Your task to perform on an android device: Show me productivity apps on the Play Store Image 0: 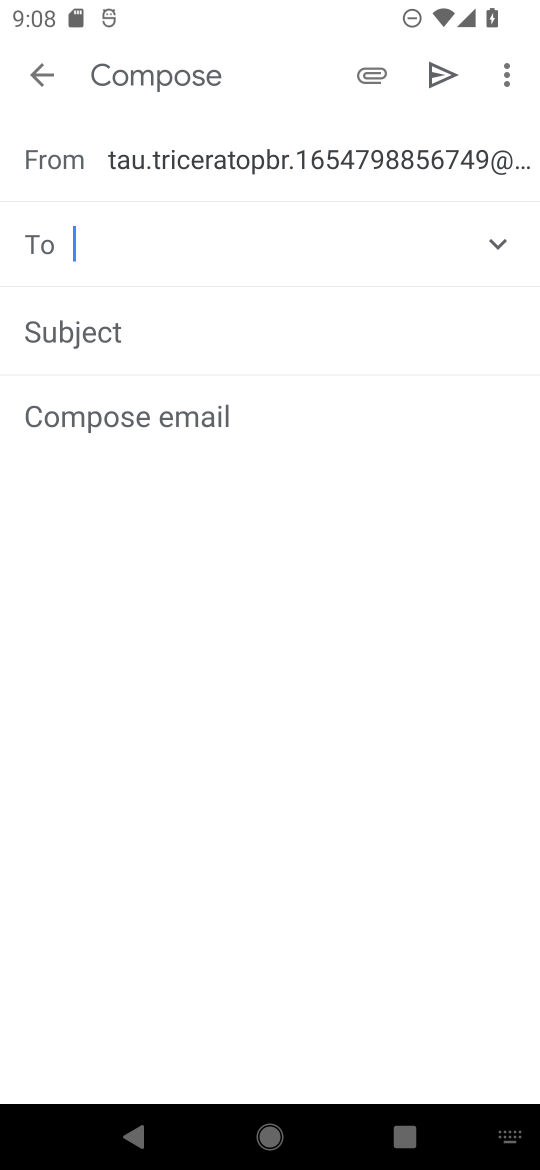
Step 0: press home button
Your task to perform on an android device: Show me productivity apps on the Play Store Image 1: 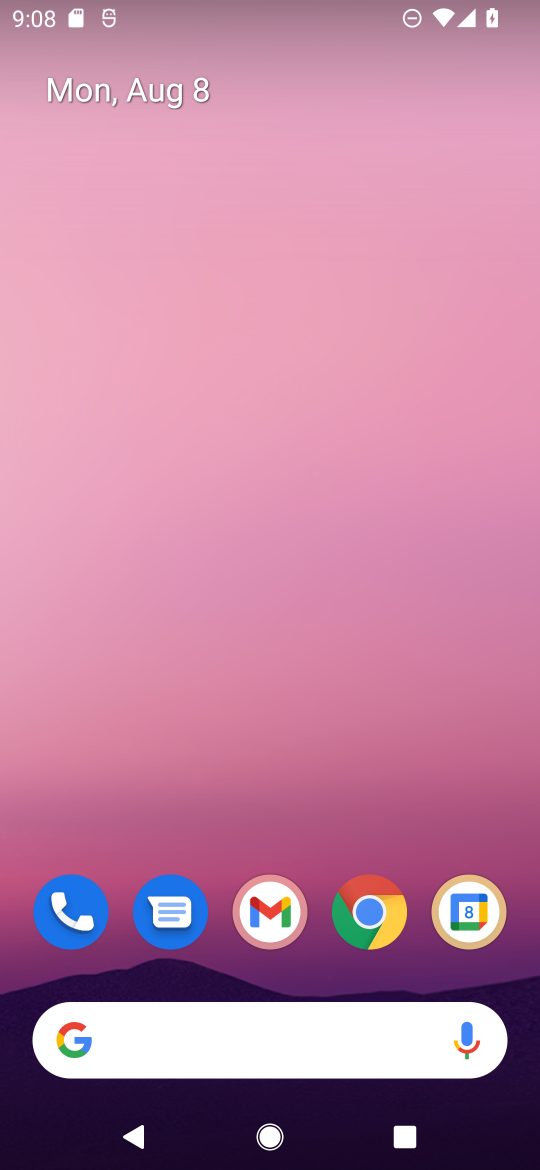
Step 1: drag from (507, 777) to (325, 46)
Your task to perform on an android device: Show me productivity apps on the Play Store Image 2: 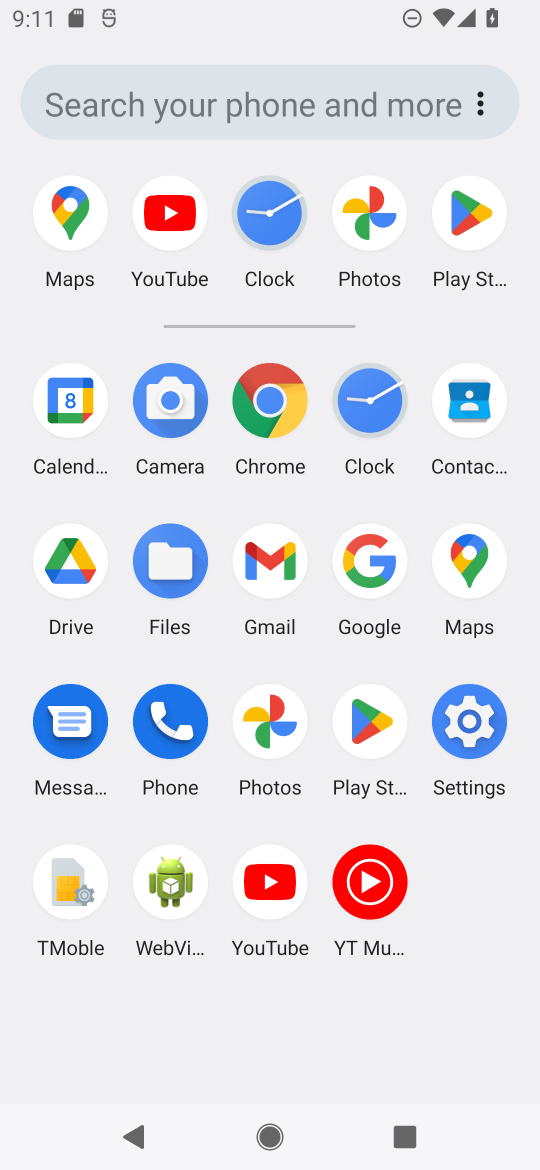
Step 2: click (344, 710)
Your task to perform on an android device: Show me productivity apps on the Play Store Image 3: 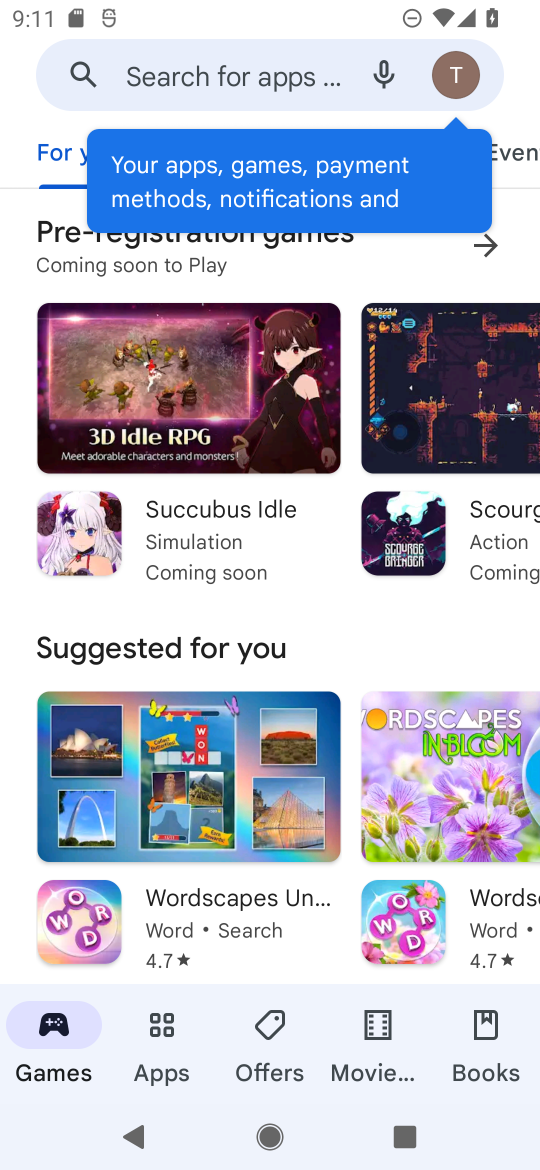
Step 3: task complete